Your task to perform on an android device: check battery use Image 0: 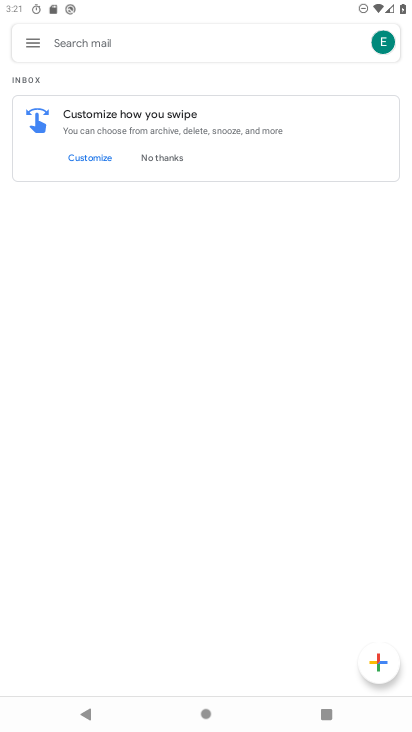
Step 0: press home button
Your task to perform on an android device: check battery use Image 1: 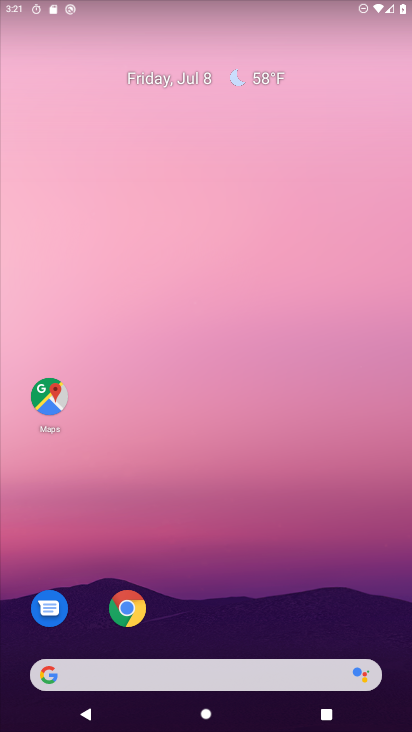
Step 1: drag from (239, 723) to (225, 83)
Your task to perform on an android device: check battery use Image 2: 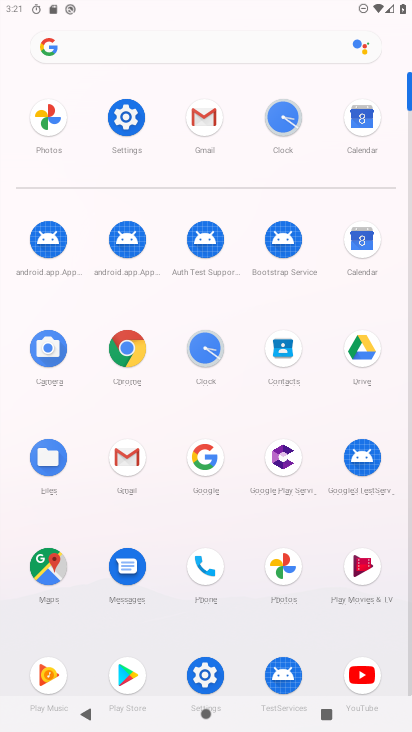
Step 2: click (123, 114)
Your task to perform on an android device: check battery use Image 3: 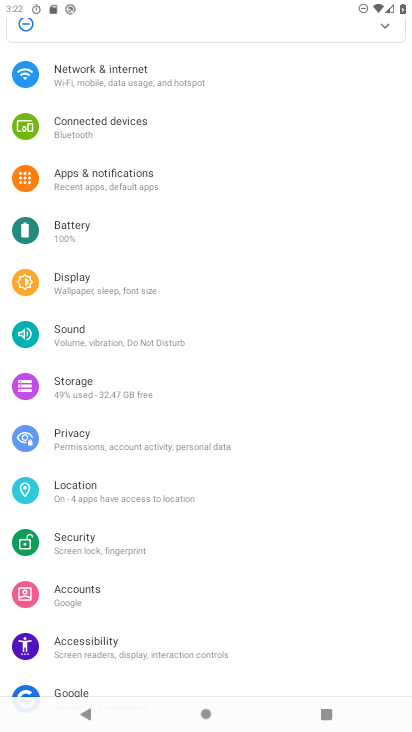
Step 3: click (67, 228)
Your task to perform on an android device: check battery use Image 4: 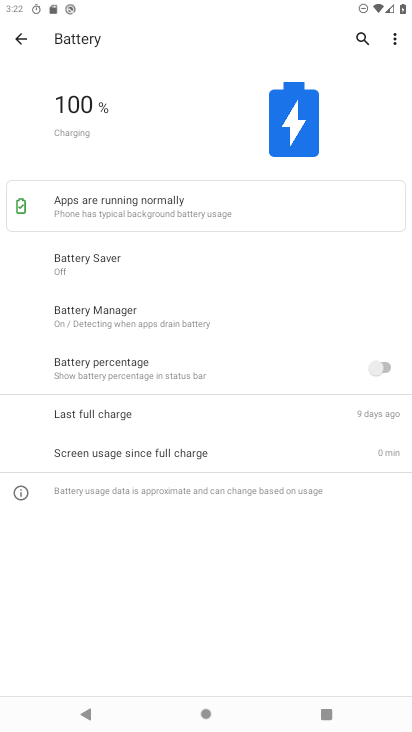
Step 4: click (397, 42)
Your task to perform on an android device: check battery use Image 5: 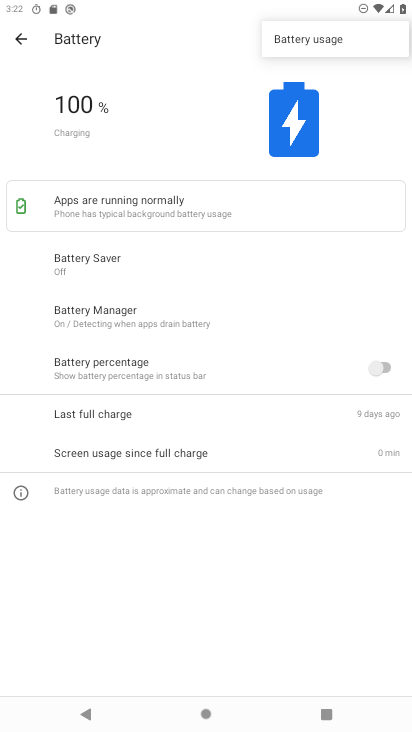
Step 5: click (301, 31)
Your task to perform on an android device: check battery use Image 6: 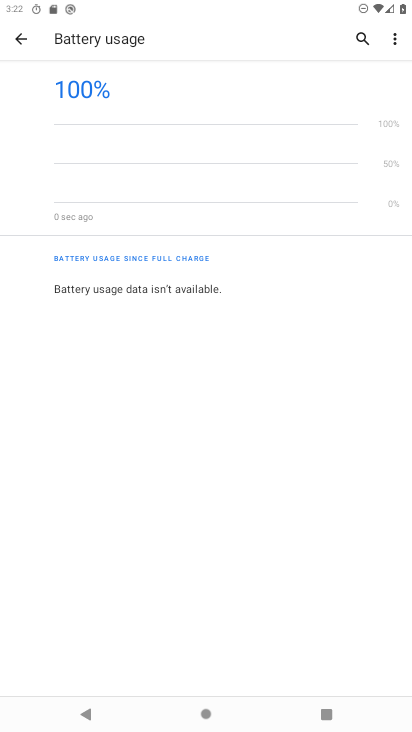
Step 6: task complete